Your task to perform on an android device: turn off notifications in google photos Image 0: 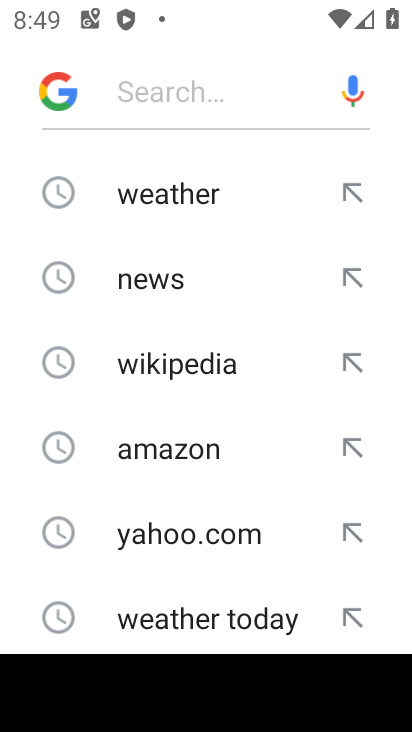
Step 0: press home button
Your task to perform on an android device: turn off notifications in google photos Image 1: 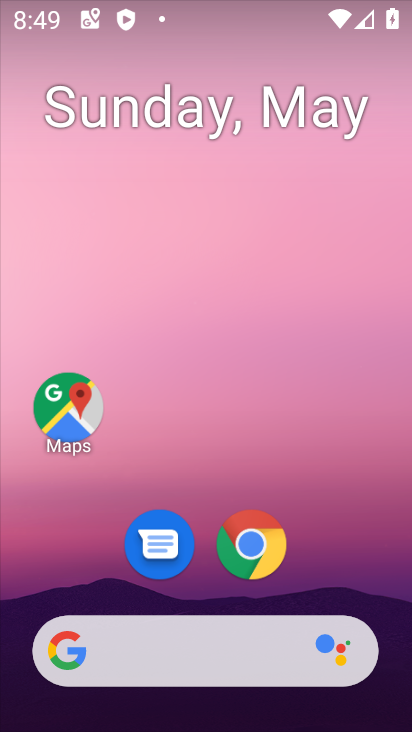
Step 1: drag from (349, 451) to (8, 238)
Your task to perform on an android device: turn off notifications in google photos Image 2: 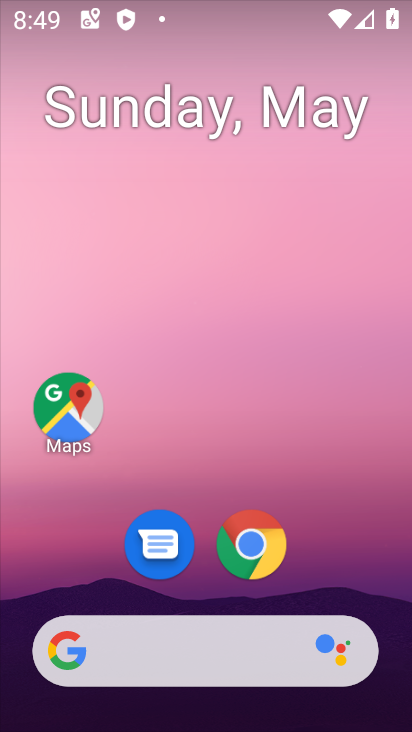
Step 2: drag from (355, 609) to (371, 0)
Your task to perform on an android device: turn off notifications in google photos Image 3: 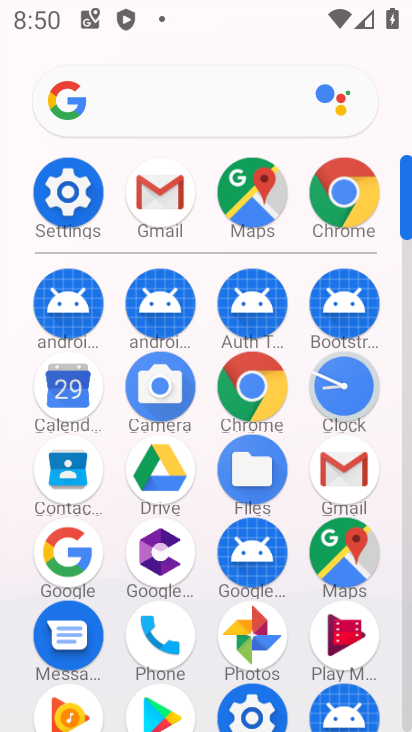
Step 3: click (256, 610)
Your task to perform on an android device: turn off notifications in google photos Image 4: 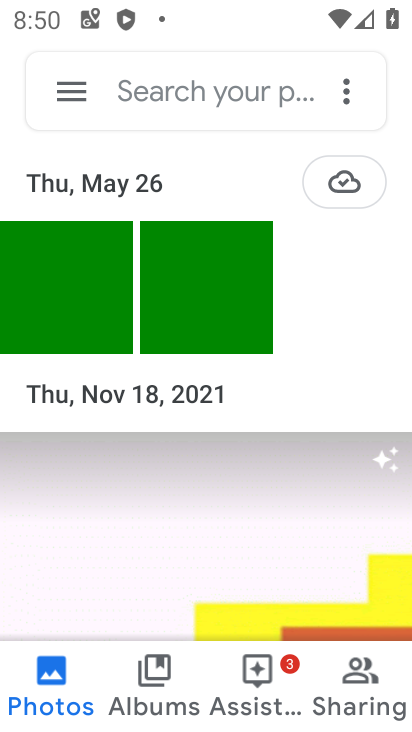
Step 4: click (61, 103)
Your task to perform on an android device: turn off notifications in google photos Image 5: 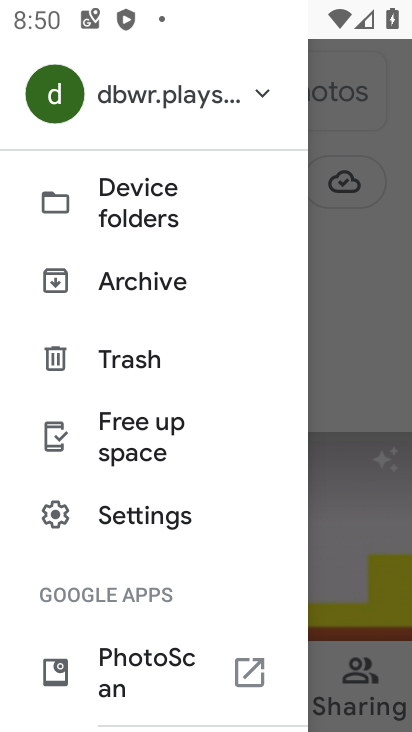
Step 5: drag from (157, 636) to (196, 111)
Your task to perform on an android device: turn off notifications in google photos Image 6: 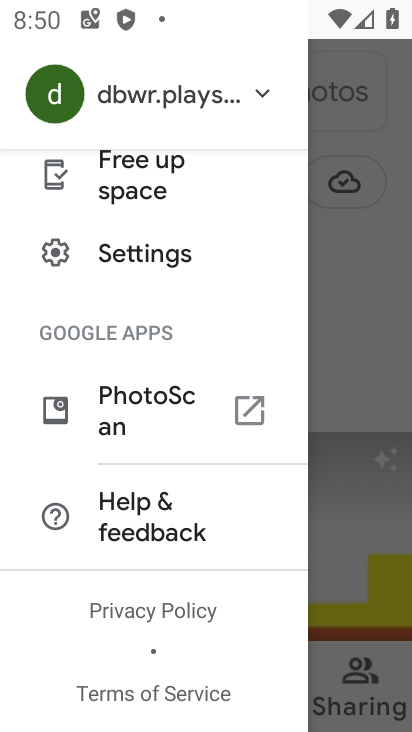
Step 6: click (109, 251)
Your task to perform on an android device: turn off notifications in google photos Image 7: 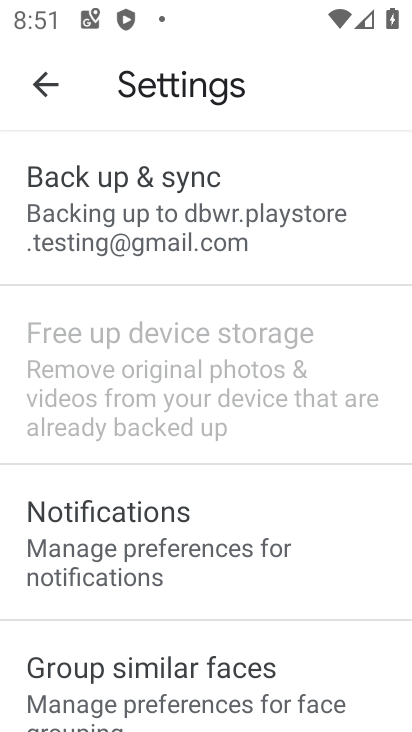
Step 7: click (166, 534)
Your task to perform on an android device: turn off notifications in google photos Image 8: 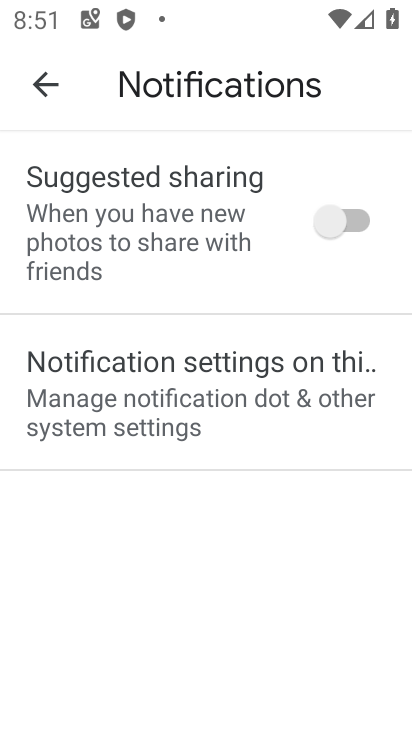
Step 8: click (228, 358)
Your task to perform on an android device: turn off notifications in google photos Image 9: 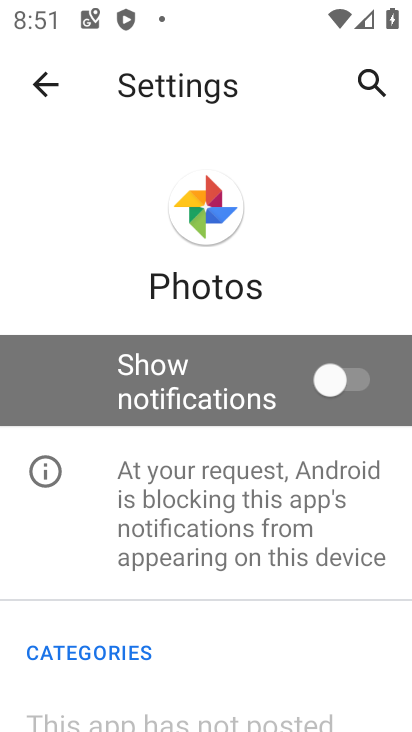
Step 9: task complete